Your task to perform on an android device: Toggle the flashlight Image 0: 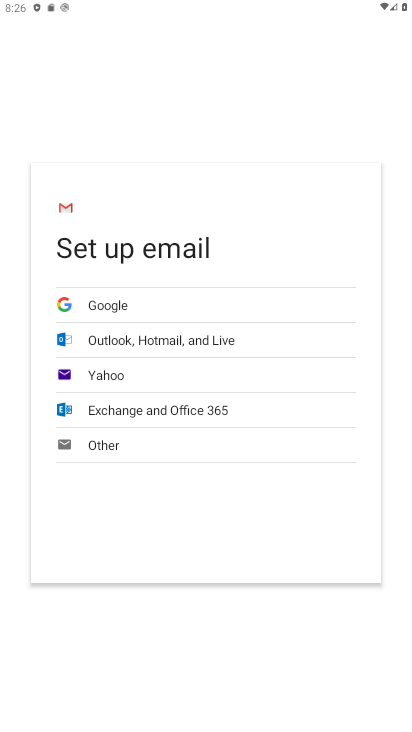
Step 0: press home button
Your task to perform on an android device: Toggle the flashlight Image 1: 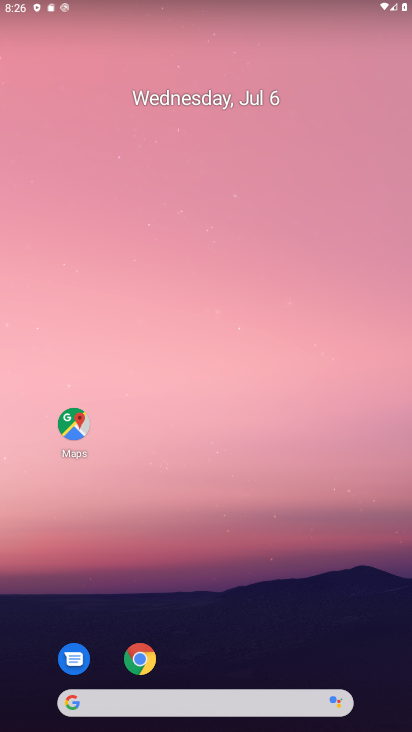
Step 1: drag from (218, 2) to (175, 476)
Your task to perform on an android device: Toggle the flashlight Image 2: 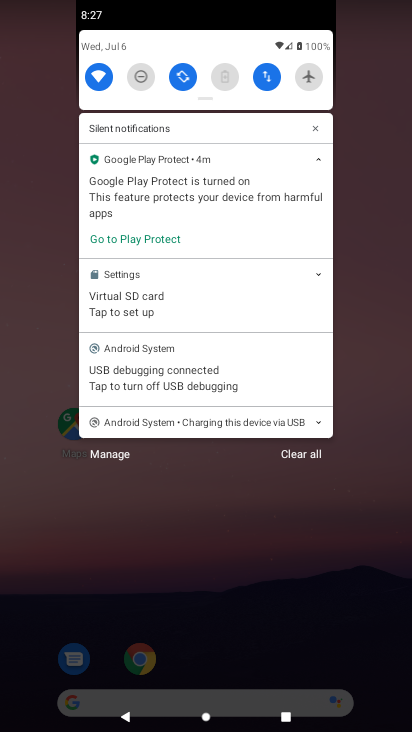
Step 2: drag from (162, 50) to (165, 442)
Your task to perform on an android device: Toggle the flashlight Image 3: 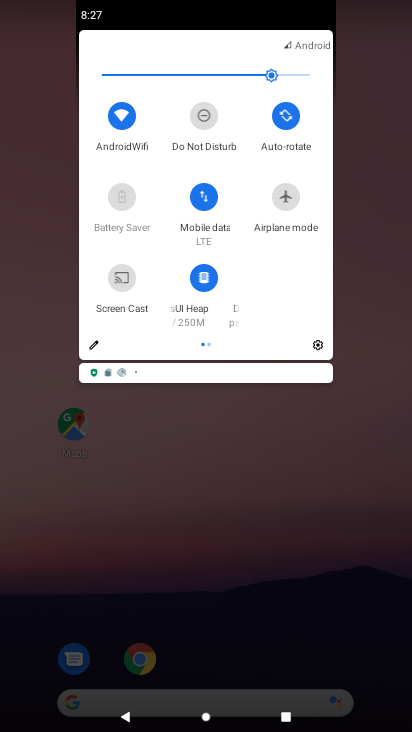
Step 3: click (90, 342)
Your task to perform on an android device: Toggle the flashlight Image 4: 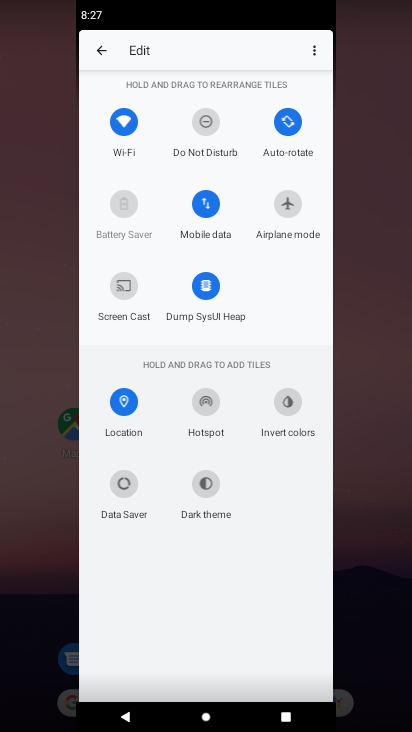
Step 4: task complete